Your task to perform on an android device: turn on improve location accuracy Image 0: 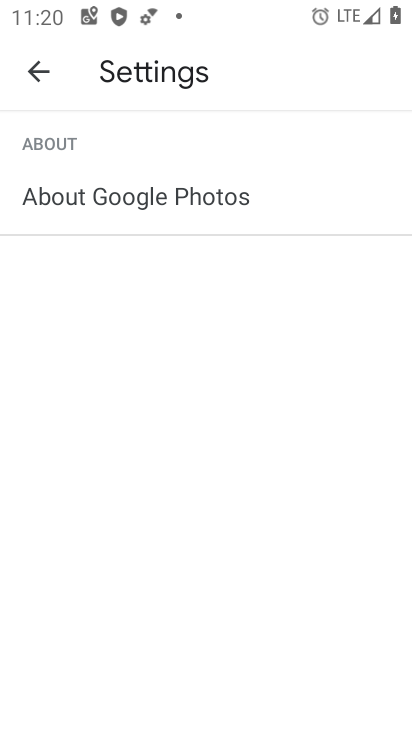
Step 0: press home button
Your task to perform on an android device: turn on improve location accuracy Image 1: 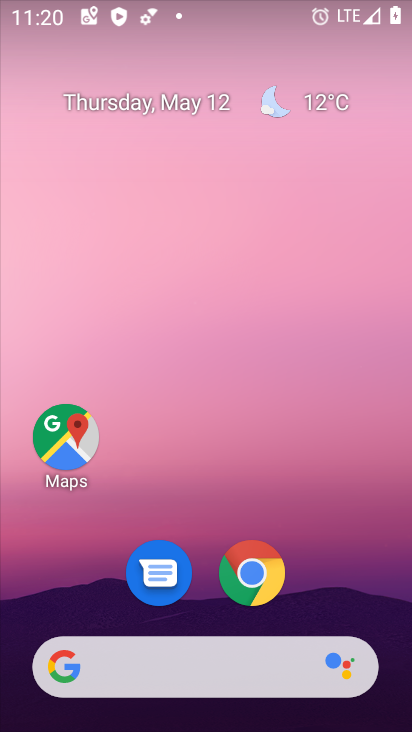
Step 1: drag from (208, 720) to (116, 153)
Your task to perform on an android device: turn on improve location accuracy Image 2: 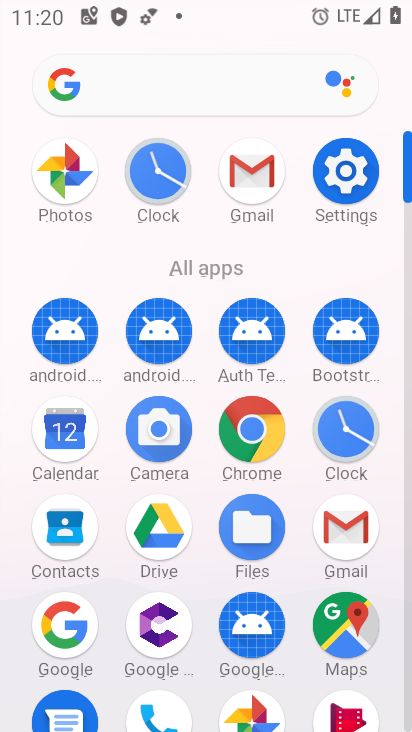
Step 2: click (347, 188)
Your task to perform on an android device: turn on improve location accuracy Image 3: 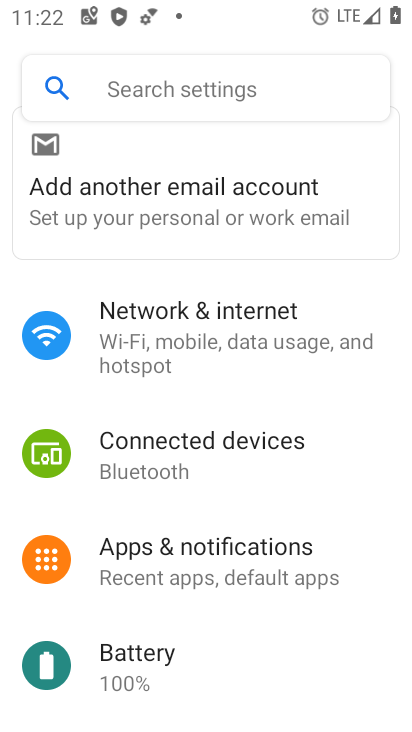
Step 3: drag from (212, 673) to (224, 198)
Your task to perform on an android device: turn on improve location accuracy Image 4: 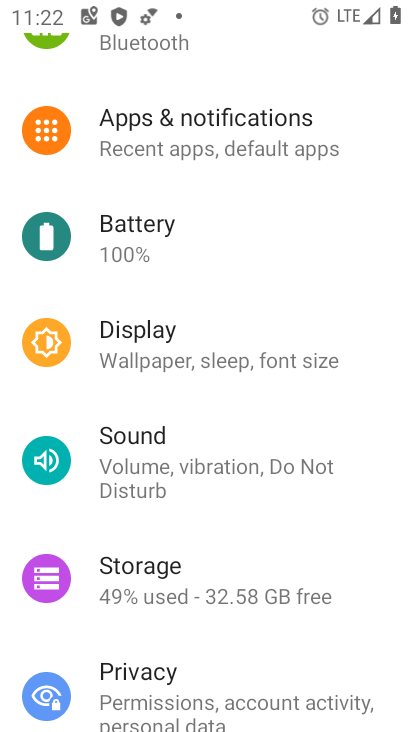
Step 4: drag from (272, 599) to (224, 280)
Your task to perform on an android device: turn on improve location accuracy Image 5: 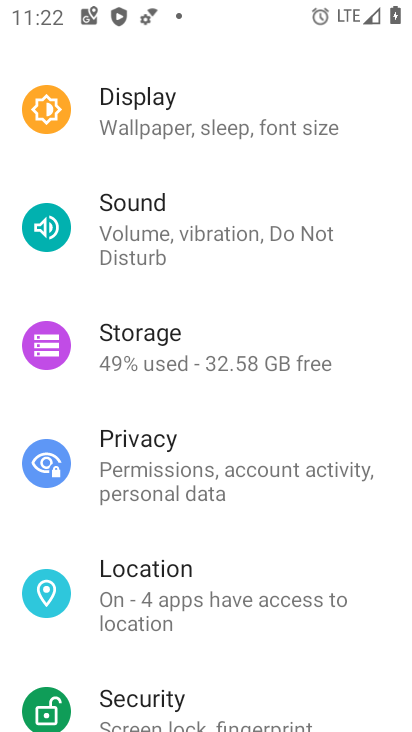
Step 5: click (257, 589)
Your task to perform on an android device: turn on improve location accuracy Image 6: 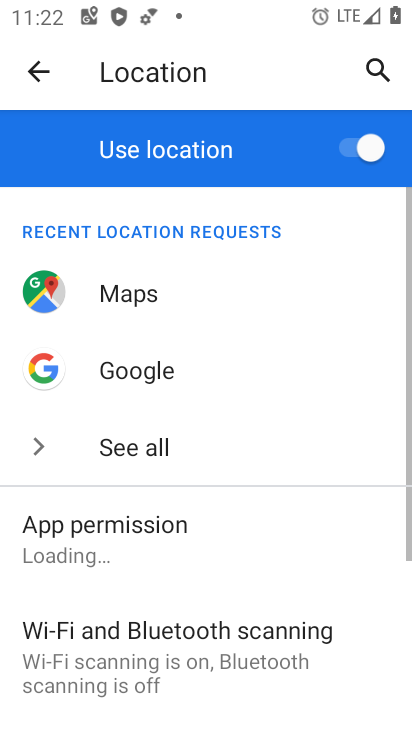
Step 6: drag from (247, 632) to (254, 228)
Your task to perform on an android device: turn on improve location accuracy Image 7: 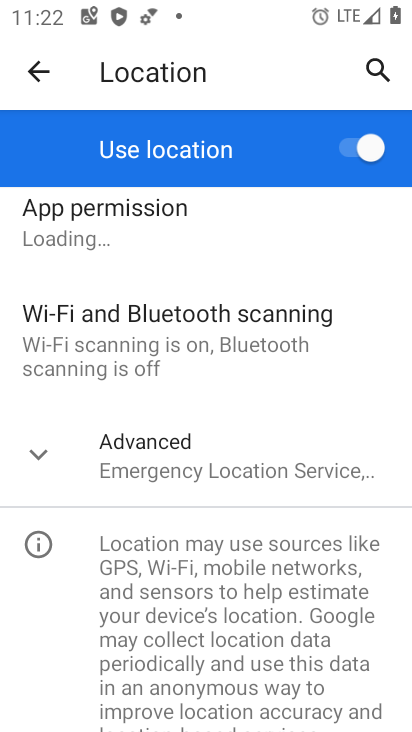
Step 7: click (239, 479)
Your task to perform on an android device: turn on improve location accuracy Image 8: 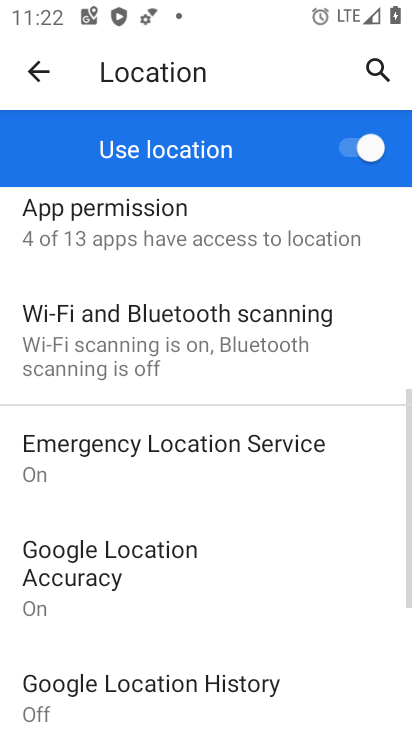
Step 8: click (115, 584)
Your task to perform on an android device: turn on improve location accuracy Image 9: 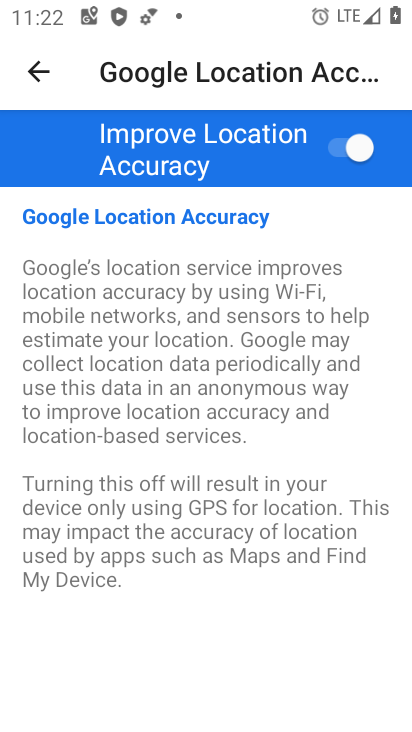
Step 9: task complete